Your task to perform on an android device: toggle javascript in the chrome app Image 0: 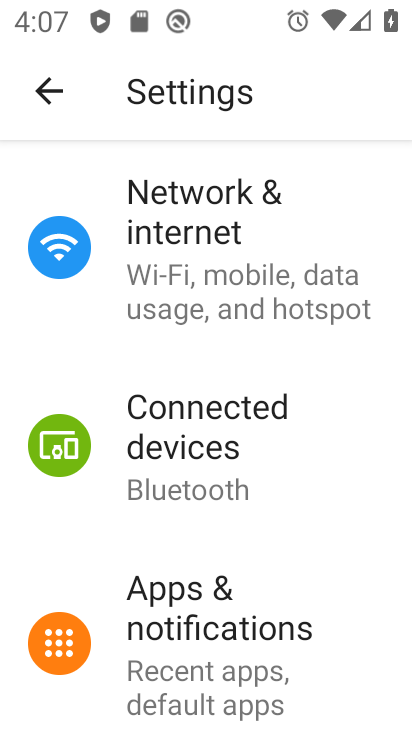
Step 0: press home button
Your task to perform on an android device: toggle javascript in the chrome app Image 1: 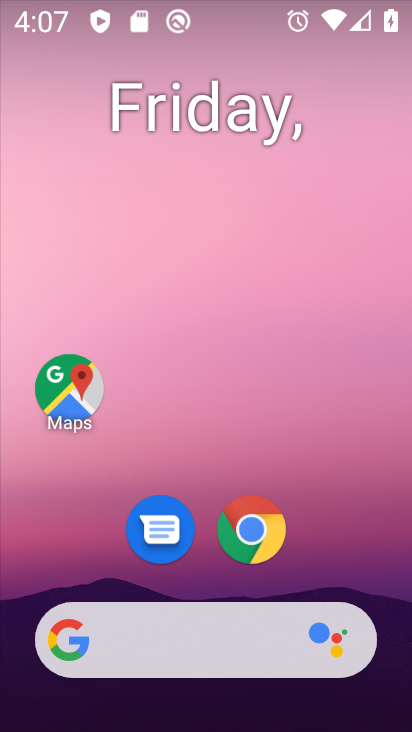
Step 1: click (265, 537)
Your task to perform on an android device: toggle javascript in the chrome app Image 2: 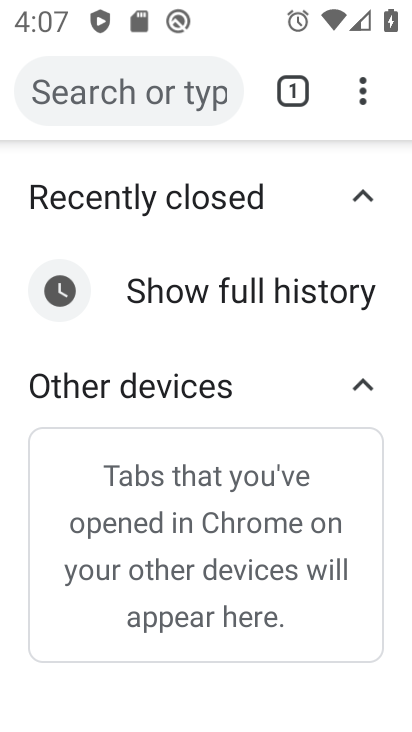
Step 2: drag from (382, 108) to (259, 586)
Your task to perform on an android device: toggle javascript in the chrome app Image 3: 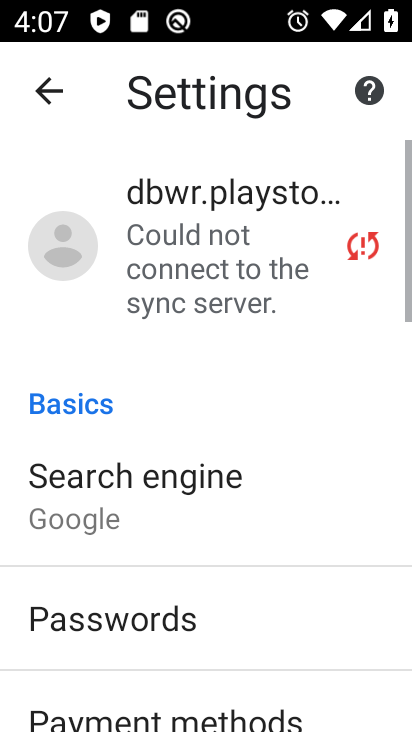
Step 3: drag from (204, 628) to (389, 124)
Your task to perform on an android device: toggle javascript in the chrome app Image 4: 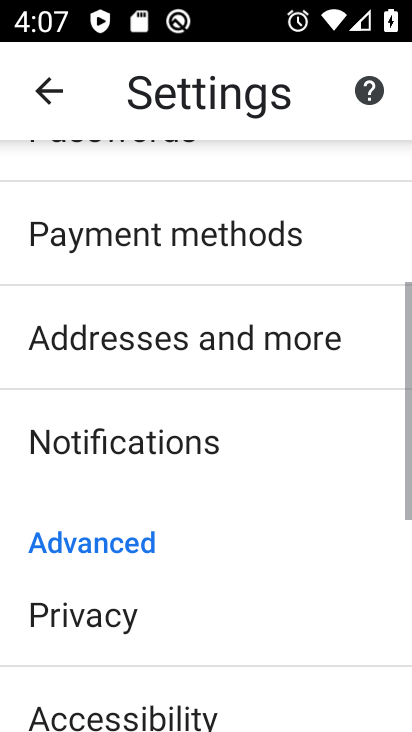
Step 4: drag from (231, 635) to (343, 306)
Your task to perform on an android device: toggle javascript in the chrome app Image 5: 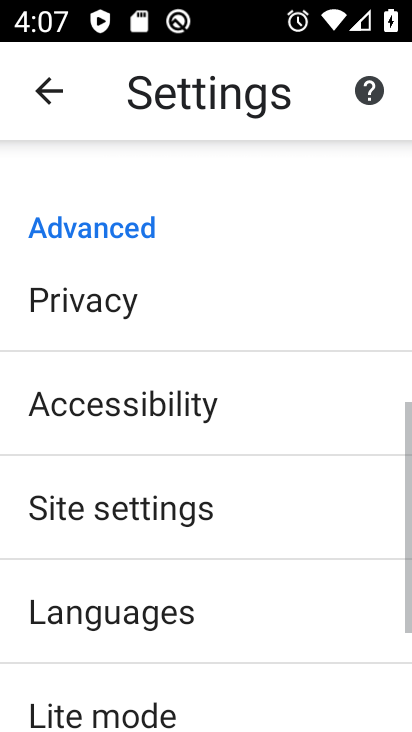
Step 5: click (239, 522)
Your task to perform on an android device: toggle javascript in the chrome app Image 6: 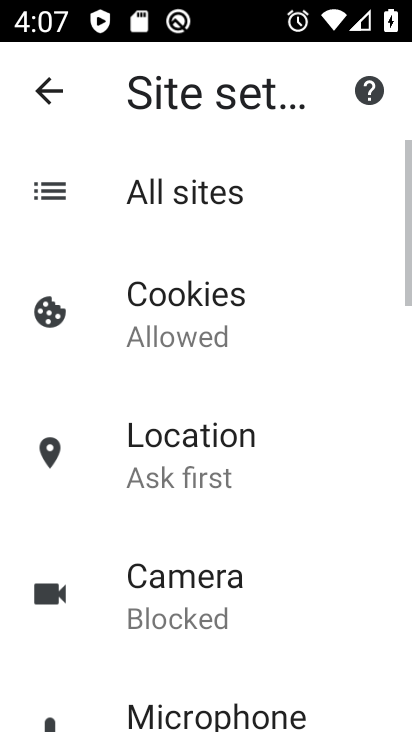
Step 6: drag from (175, 673) to (330, 275)
Your task to perform on an android device: toggle javascript in the chrome app Image 7: 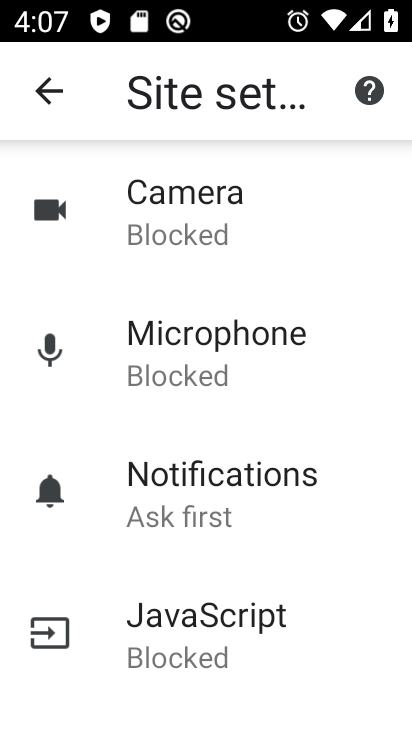
Step 7: click (250, 618)
Your task to perform on an android device: toggle javascript in the chrome app Image 8: 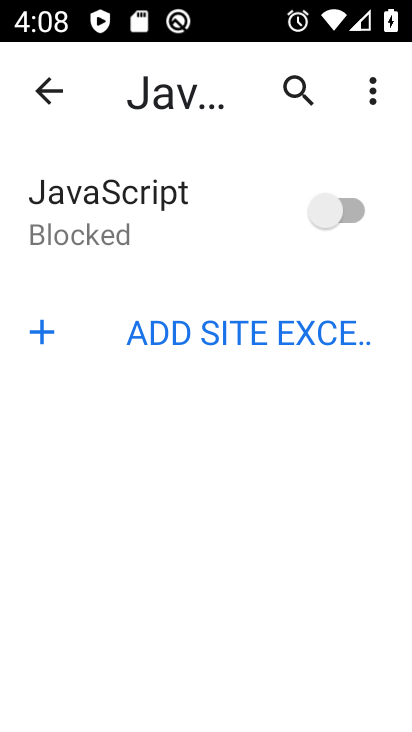
Step 8: click (371, 192)
Your task to perform on an android device: toggle javascript in the chrome app Image 9: 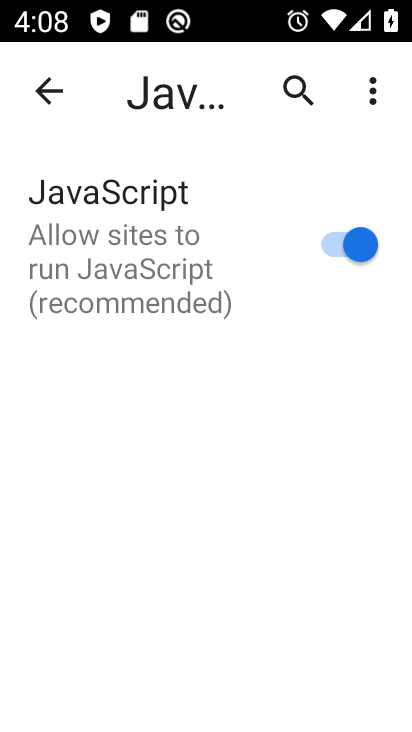
Step 9: task complete